Your task to perform on an android device: See recent photos Image 0: 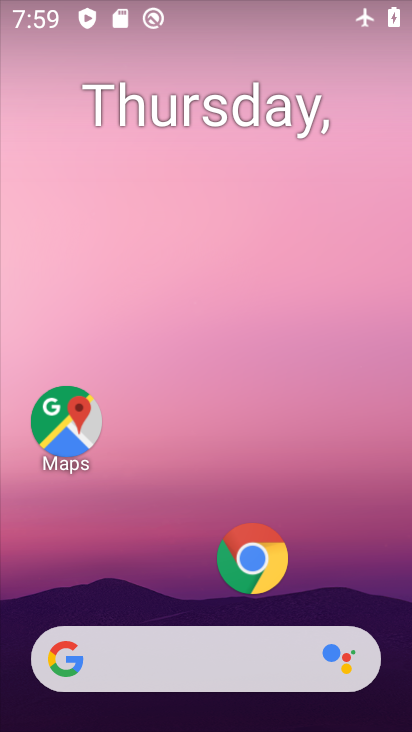
Step 0: drag from (126, 621) to (135, 209)
Your task to perform on an android device: See recent photos Image 1: 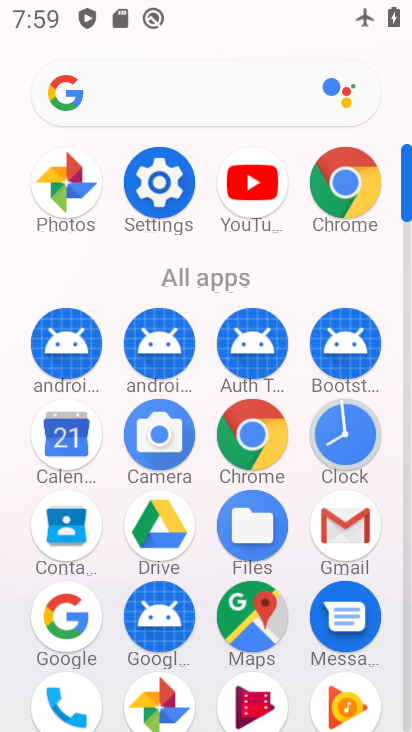
Step 1: click (159, 713)
Your task to perform on an android device: See recent photos Image 2: 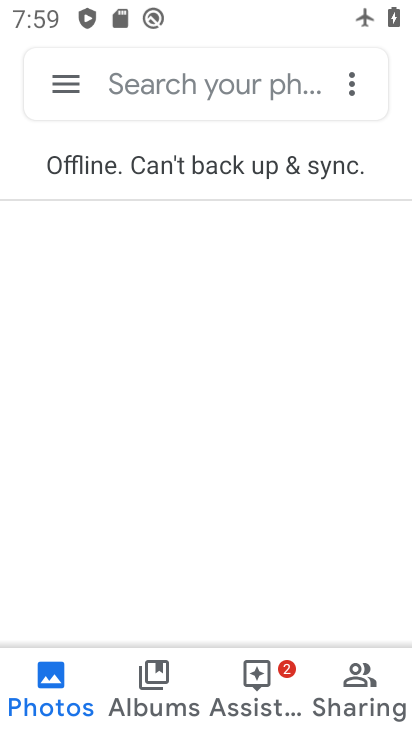
Step 2: task complete